Your task to perform on an android device: Turn on the flashlight Image 0: 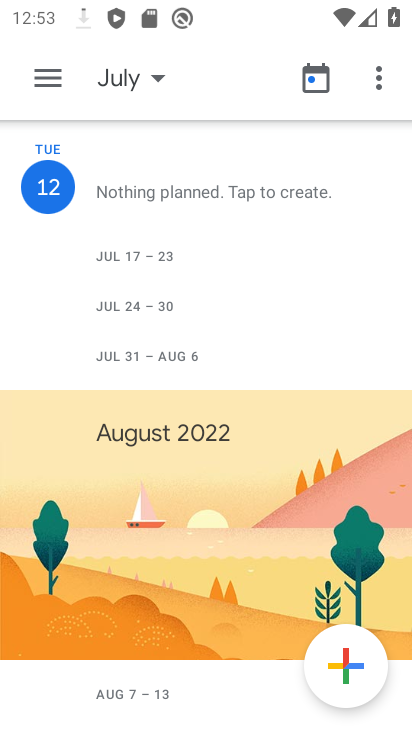
Step 0: press home button
Your task to perform on an android device: Turn on the flashlight Image 1: 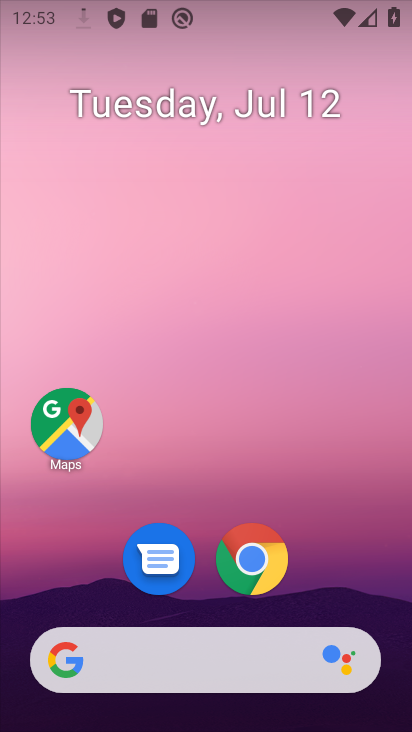
Step 1: drag from (212, 6) to (248, 451)
Your task to perform on an android device: Turn on the flashlight Image 2: 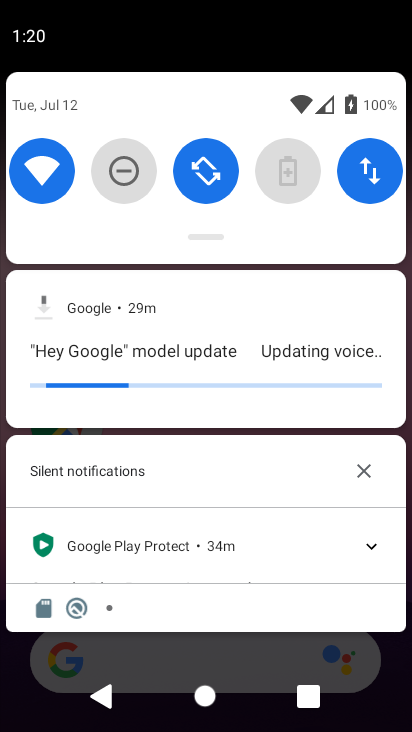
Step 2: drag from (247, 85) to (257, 349)
Your task to perform on an android device: Turn on the flashlight Image 3: 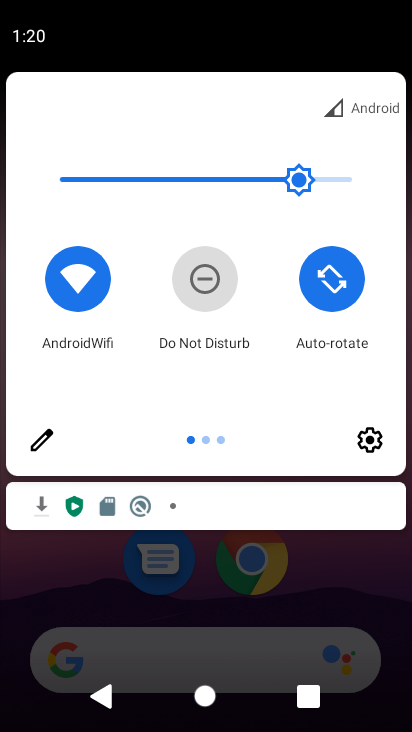
Step 3: click (45, 447)
Your task to perform on an android device: Turn on the flashlight Image 4: 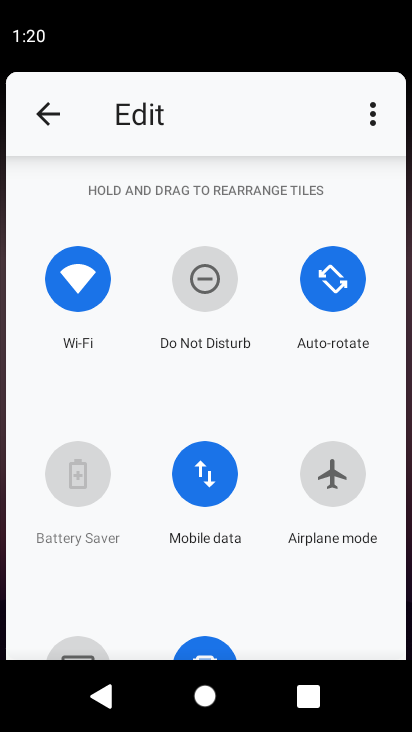
Step 4: task complete